Your task to perform on an android device: View the shopping cart on walmart.com. Add razer blade to the cart on walmart.com Image 0: 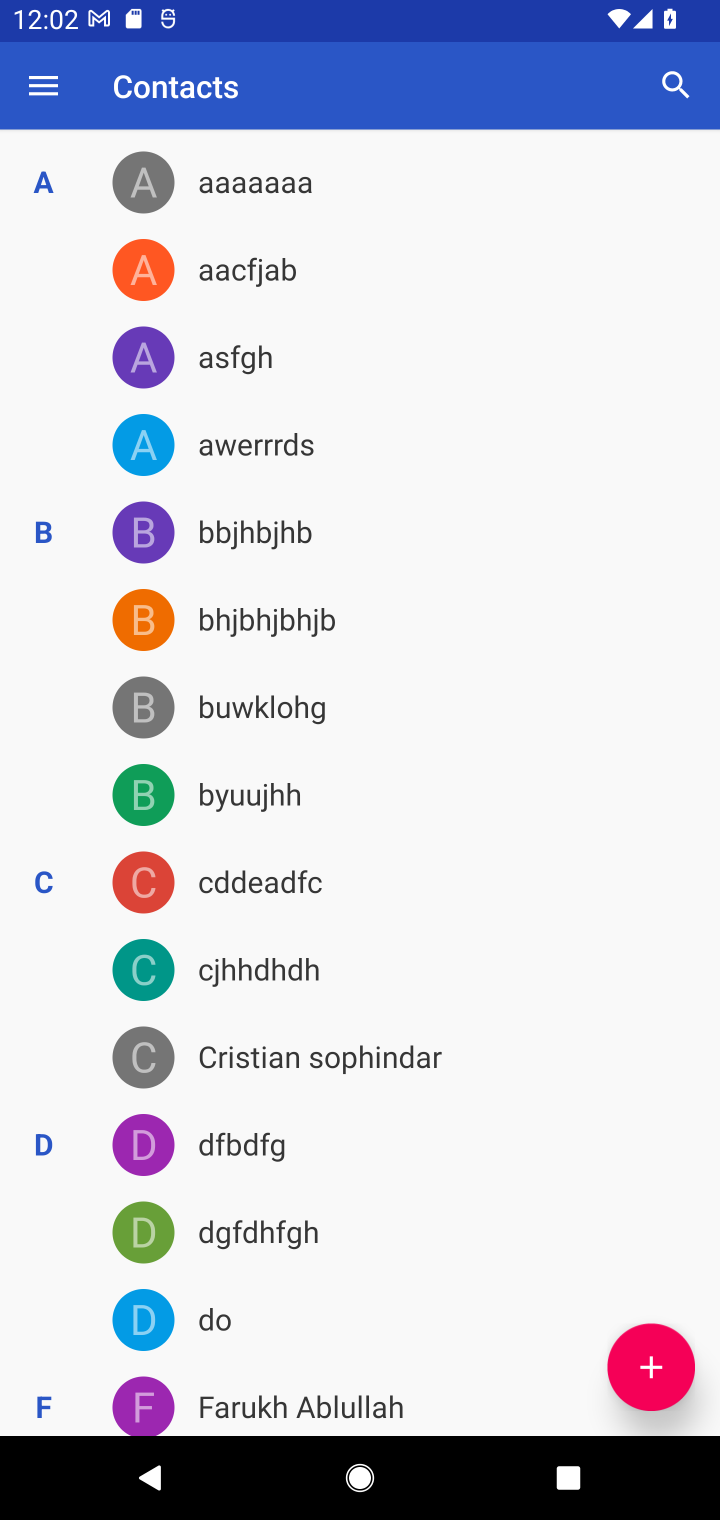
Step 0: press home button
Your task to perform on an android device: View the shopping cart on walmart.com. Add razer blade to the cart on walmart.com Image 1: 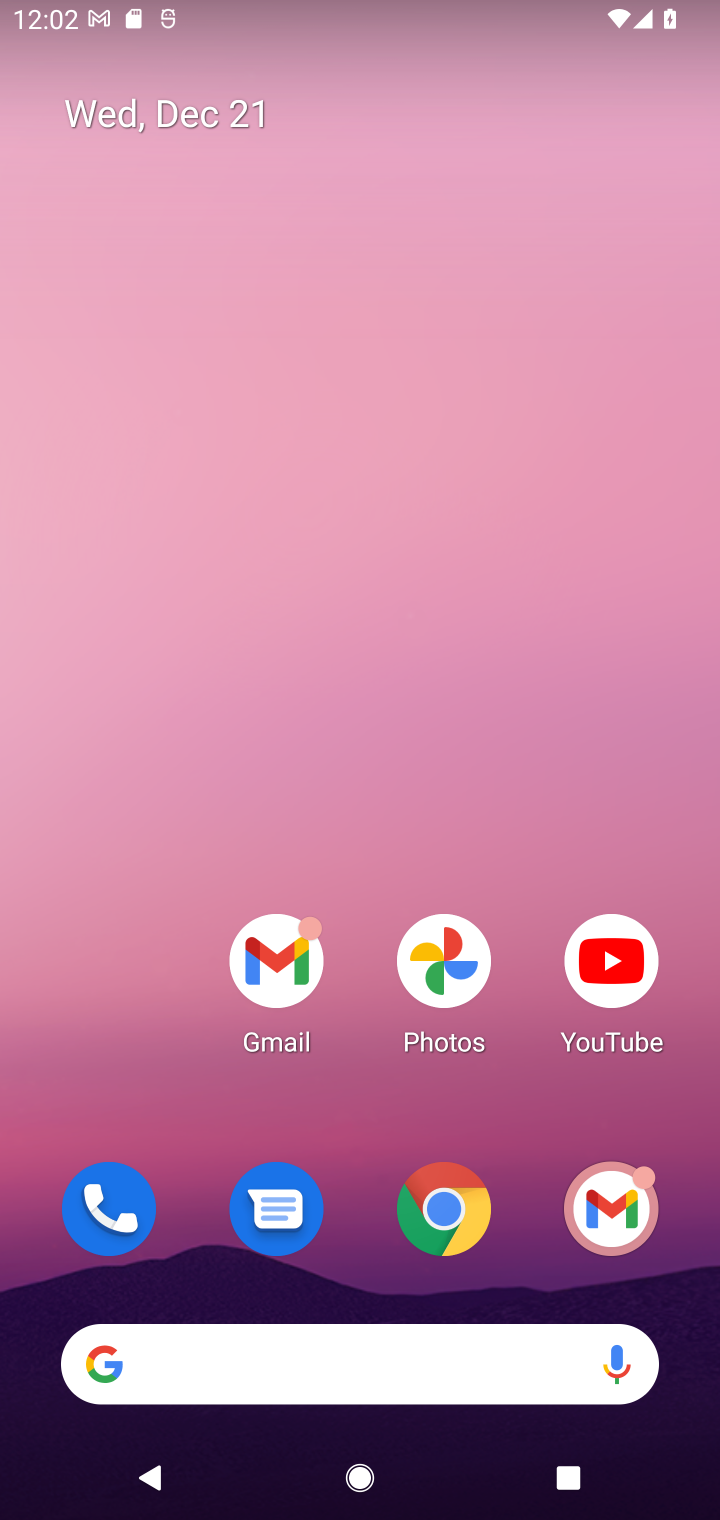
Step 1: click (450, 1215)
Your task to perform on an android device: View the shopping cart on walmart.com. Add razer blade to the cart on walmart.com Image 2: 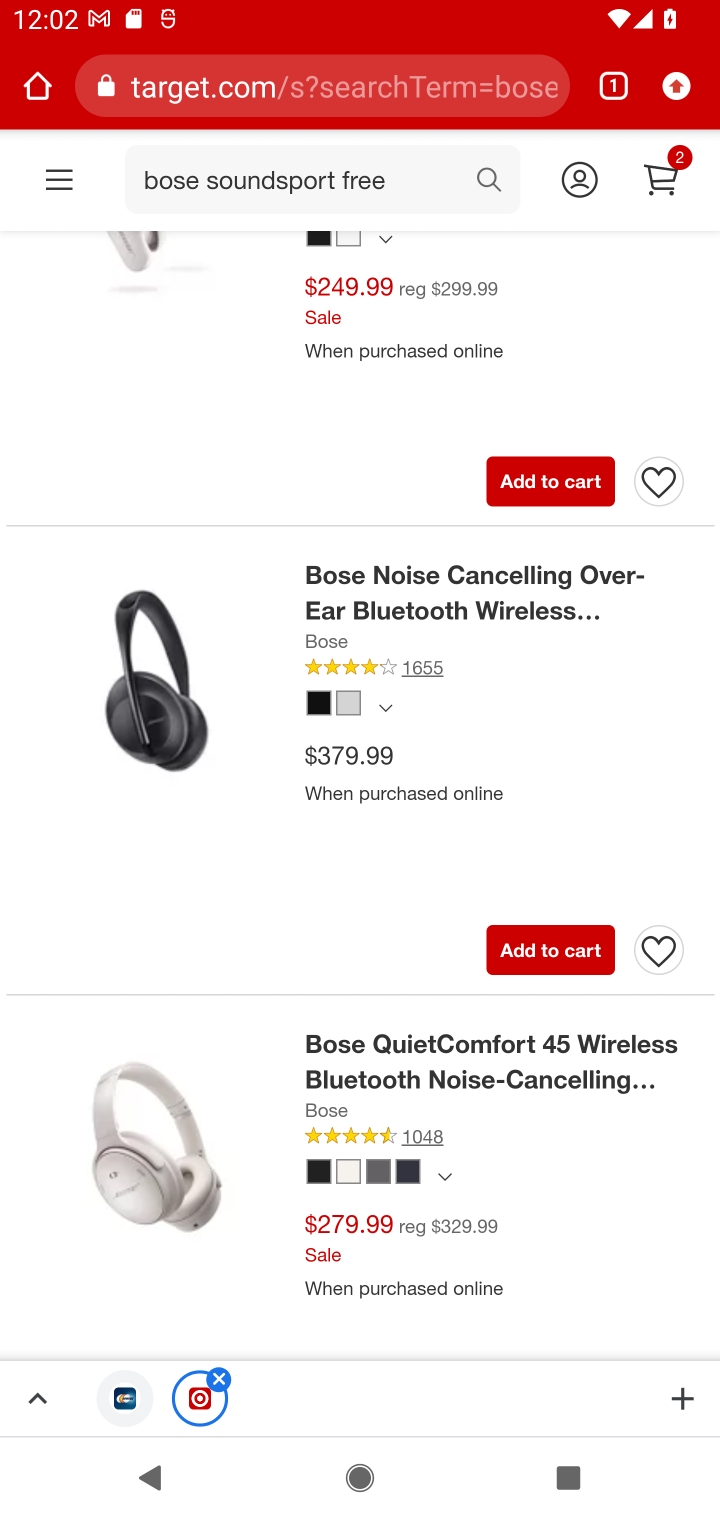
Step 2: click (248, 88)
Your task to perform on an android device: View the shopping cart on walmart.com. Add razer blade to the cart on walmart.com Image 3: 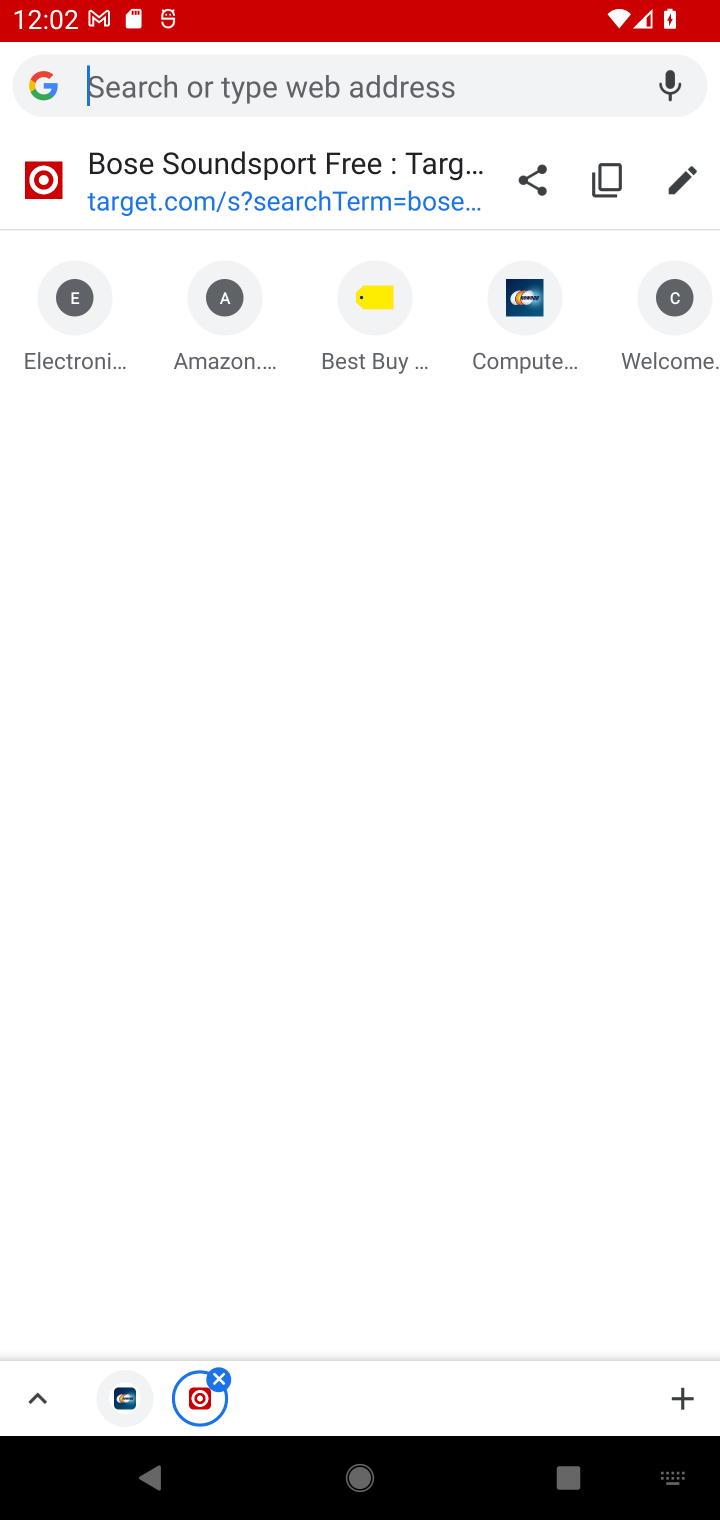
Step 3: type "walmart.com"
Your task to perform on an android device: View the shopping cart on walmart.com. Add razer blade to the cart on walmart.com Image 4: 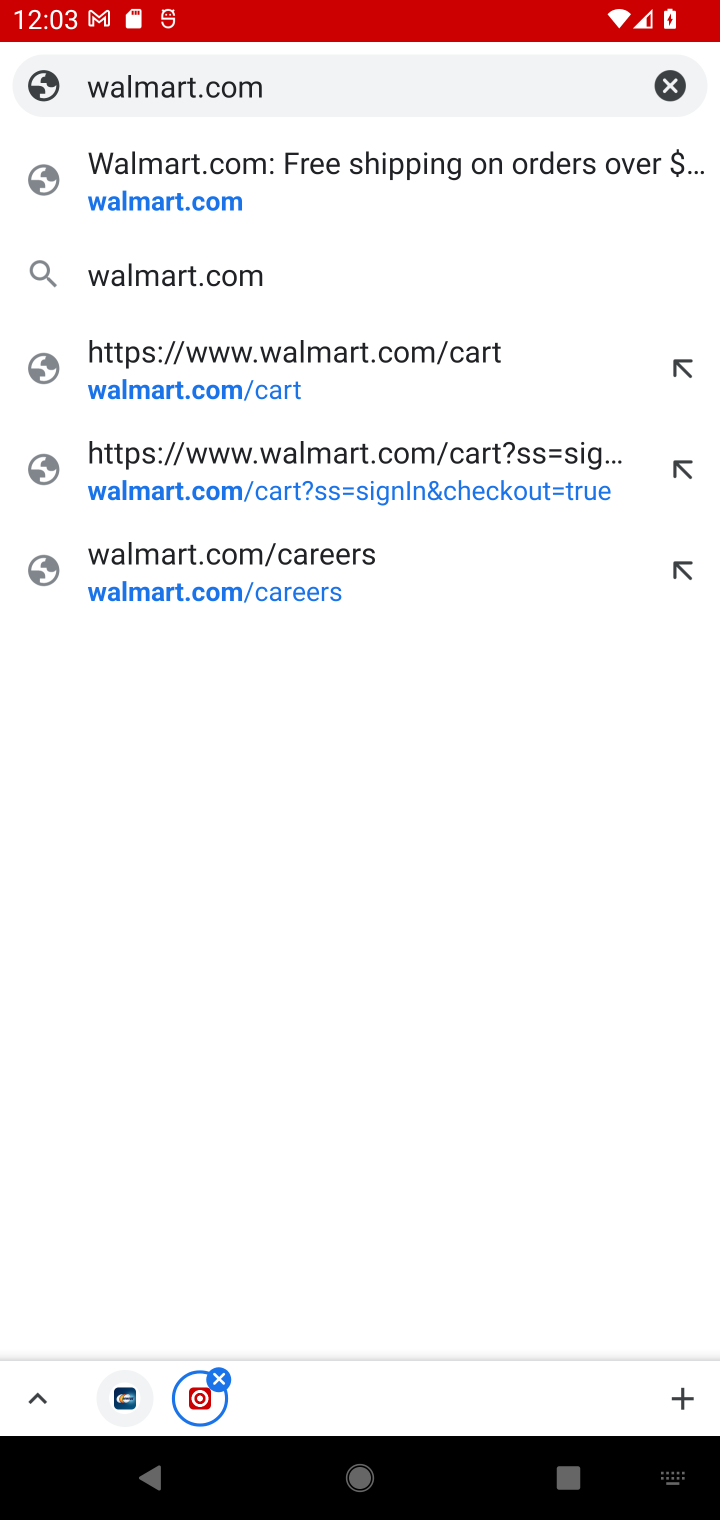
Step 4: click (147, 194)
Your task to perform on an android device: View the shopping cart on walmart.com. Add razer blade to the cart on walmart.com Image 5: 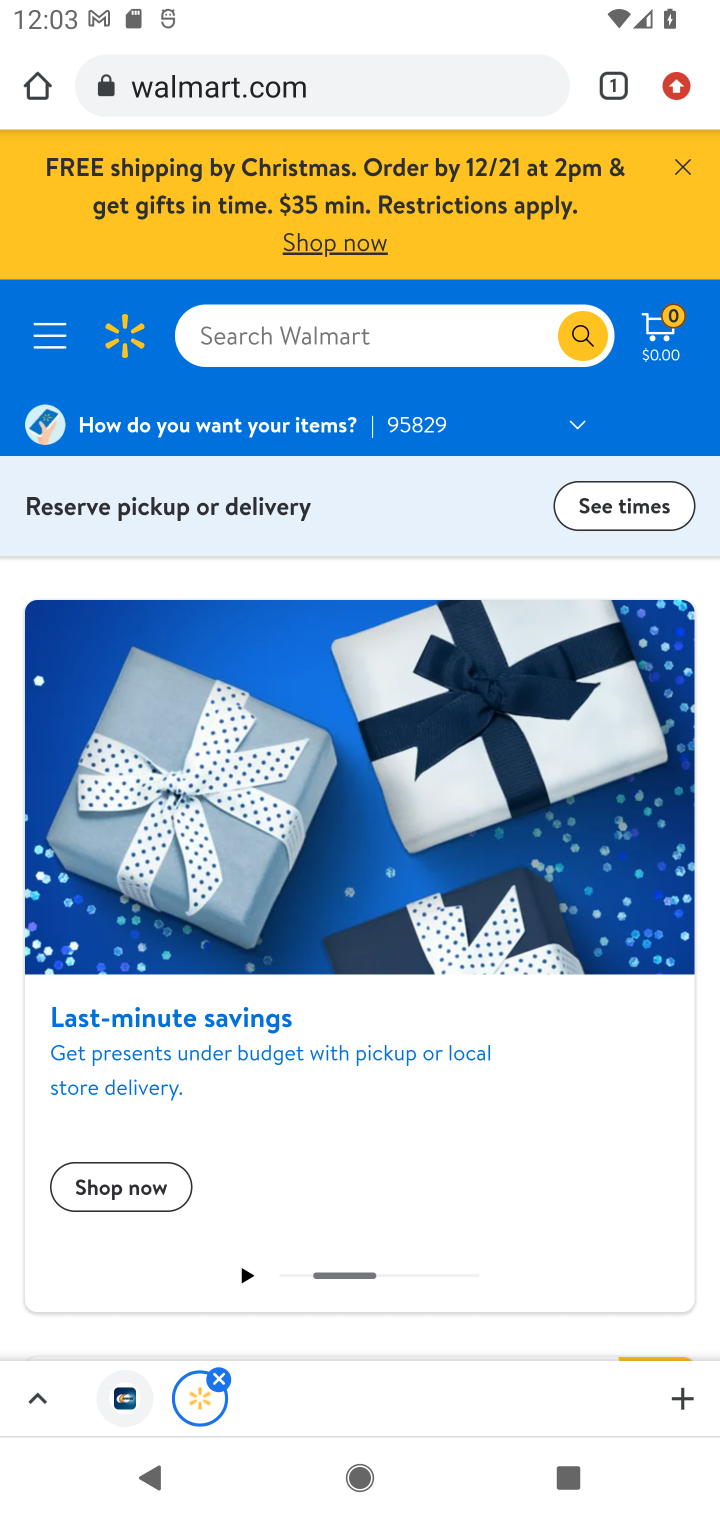
Step 5: click (660, 345)
Your task to perform on an android device: View the shopping cart on walmart.com. Add razer blade to the cart on walmart.com Image 6: 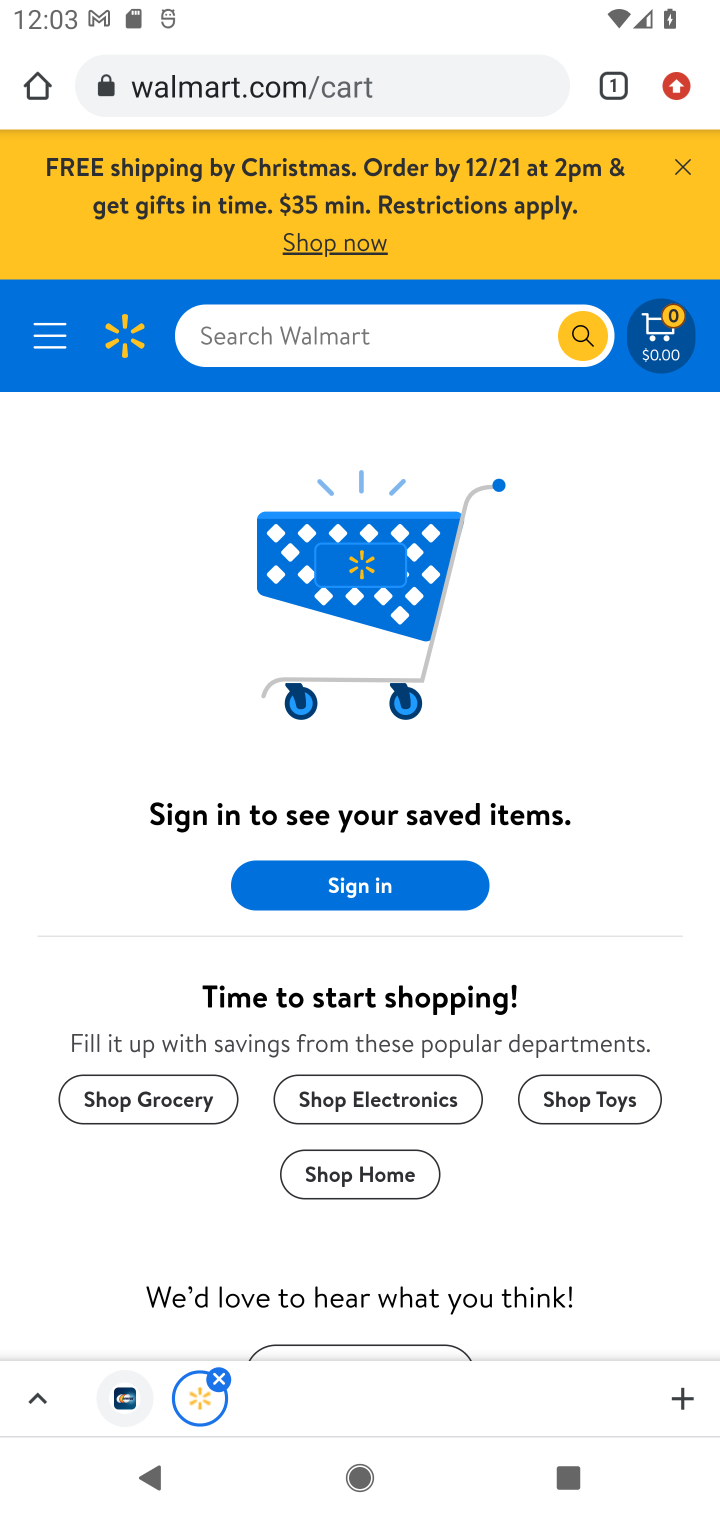
Step 6: click (248, 348)
Your task to perform on an android device: View the shopping cart on walmart.com. Add razer blade to the cart on walmart.com Image 7: 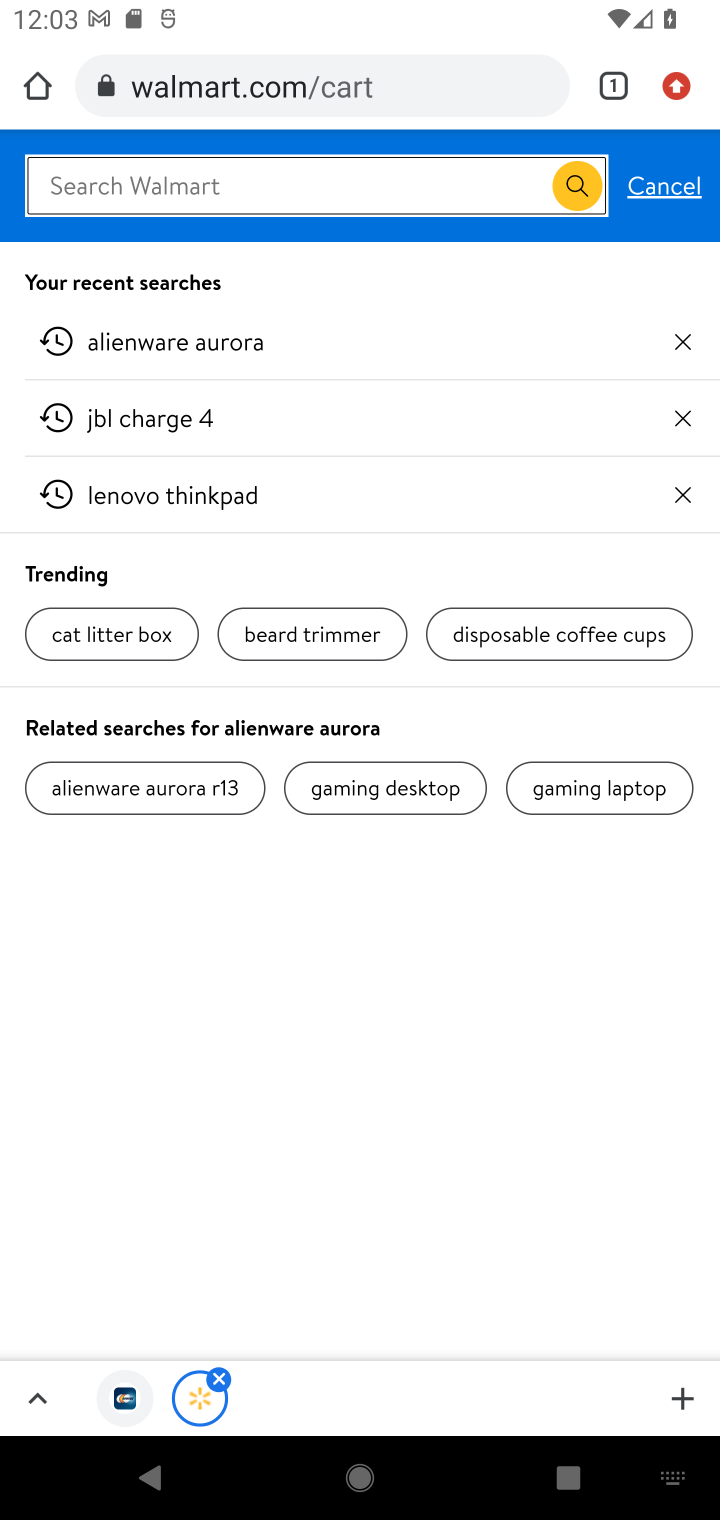
Step 7: type "razer blade"
Your task to perform on an android device: View the shopping cart on walmart.com. Add razer blade to the cart on walmart.com Image 8: 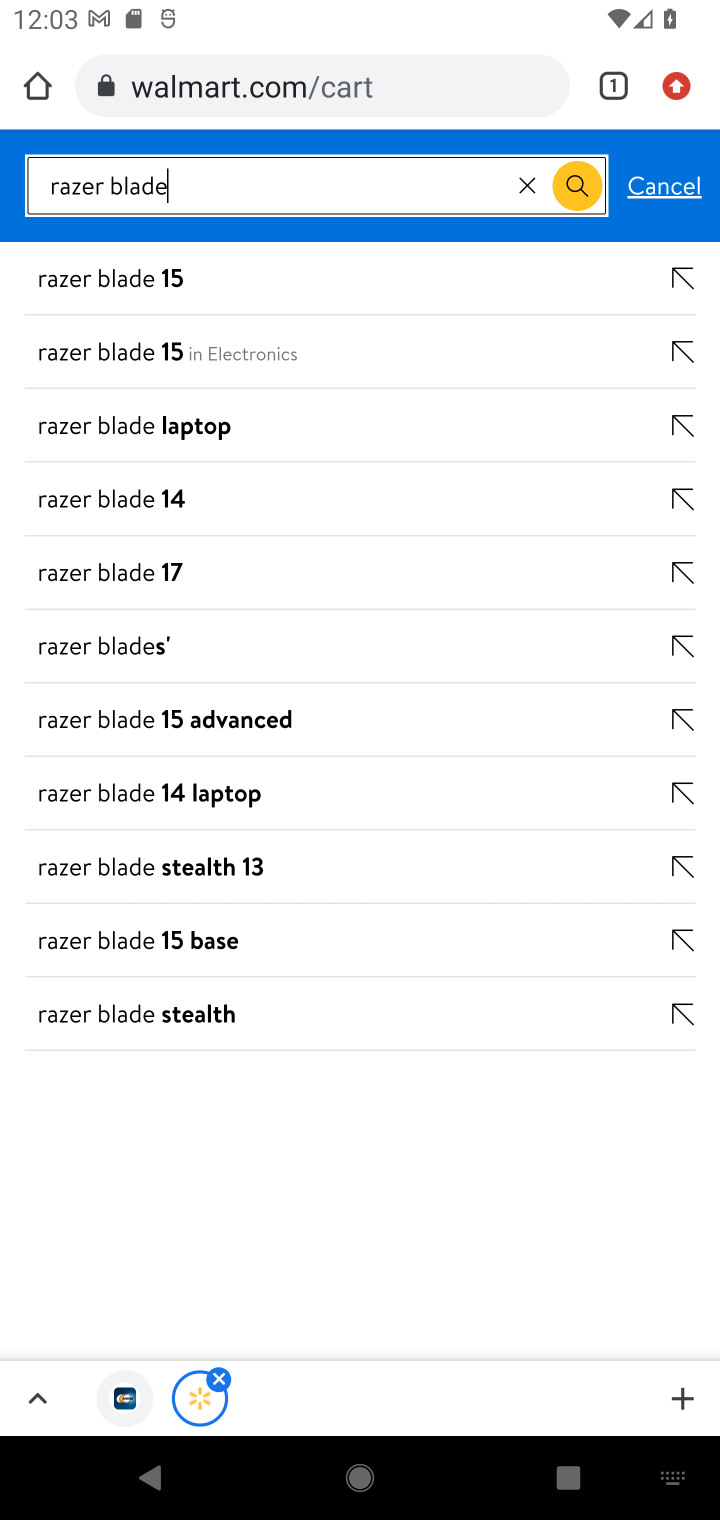
Step 8: click (581, 188)
Your task to perform on an android device: View the shopping cart on walmart.com. Add razer blade to the cart on walmart.com Image 9: 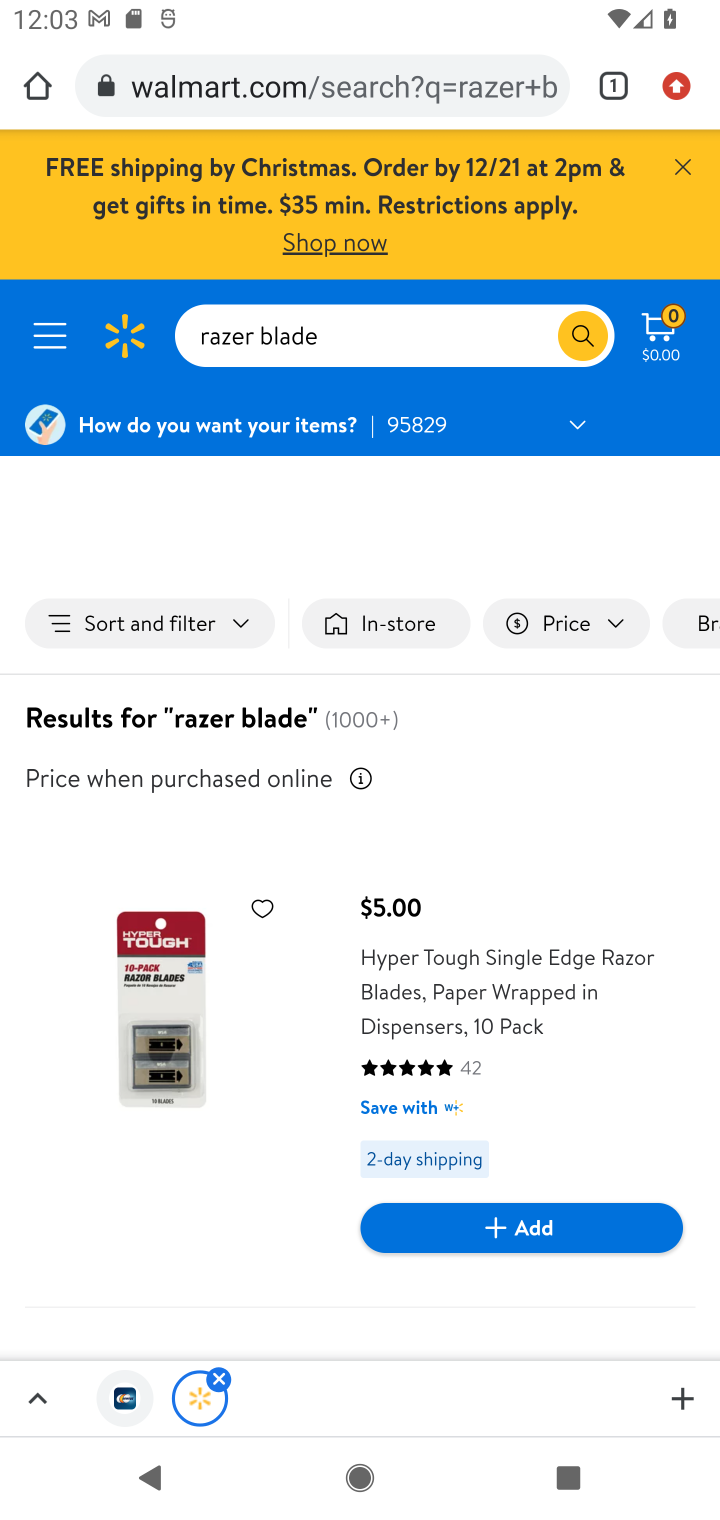
Step 9: task complete